Your task to perform on an android device: Open network settings Image 0: 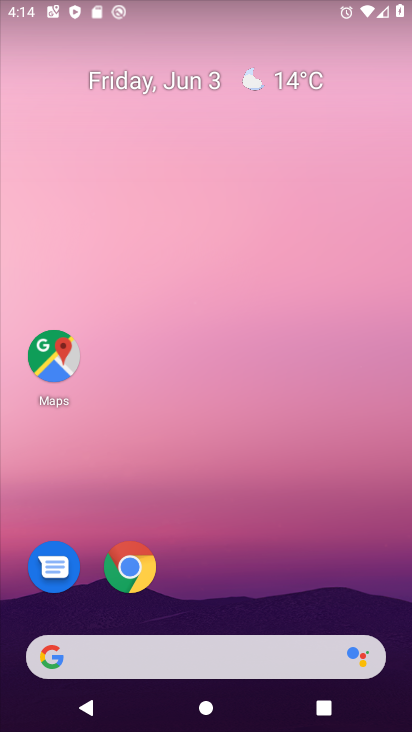
Step 0: drag from (292, 687) to (244, 209)
Your task to perform on an android device: Open network settings Image 1: 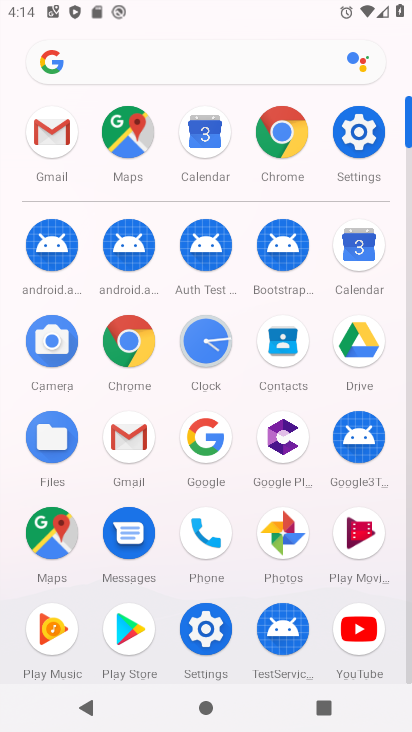
Step 1: click (369, 110)
Your task to perform on an android device: Open network settings Image 2: 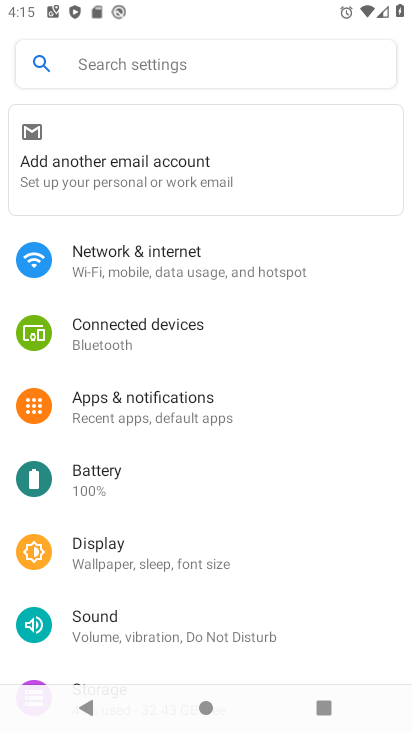
Step 2: click (155, 275)
Your task to perform on an android device: Open network settings Image 3: 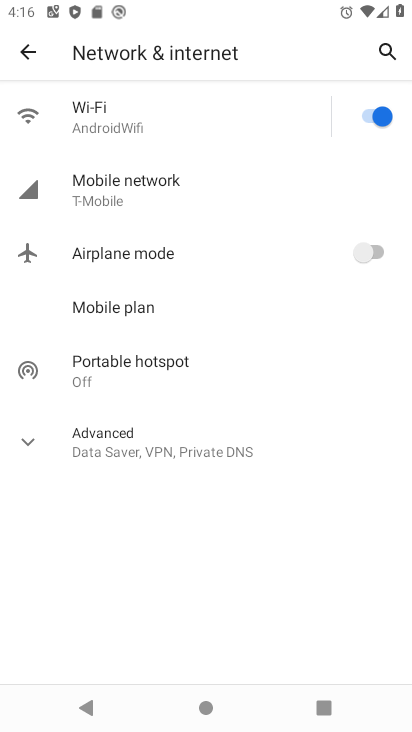
Step 3: task complete